Your task to perform on an android device: Toggle the flashlight Image 0: 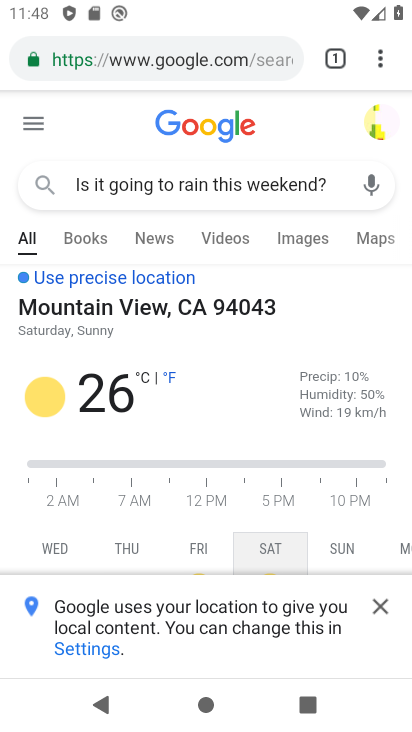
Step 0: press home button
Your task to perform on an android device: Toggle the flashlight Image 1: 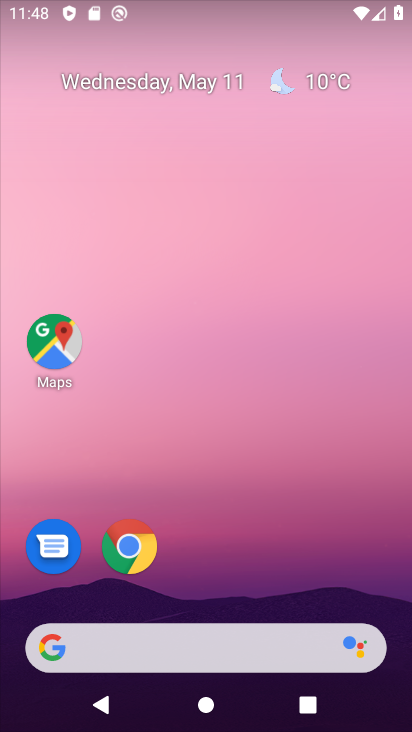
Step 1: drag from (189, 581) to (213, 207)
Your task to perform on an android device: Toggle the flashlight Image 2: 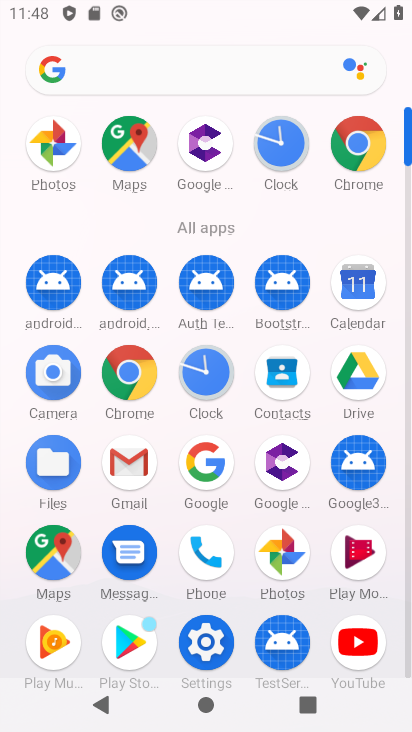
Step 2: click (202, 644)
Your task to perform on an android device: Toggle the flashlight Image 3: 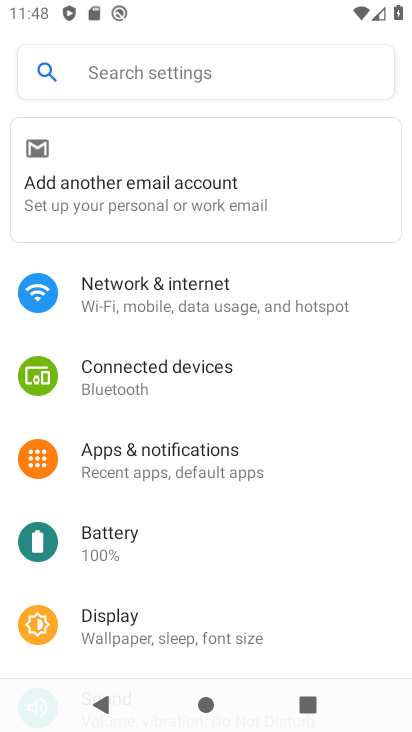
Step 3: click (145, 633)
Your task to perform on an android device: Toggle the flashlight Image 4: 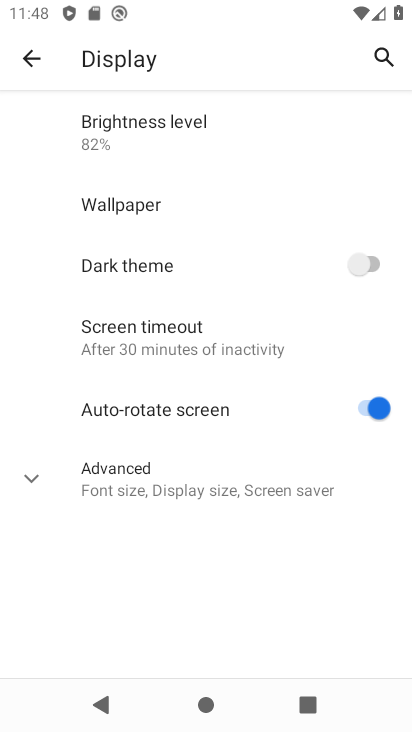
Step 4: task complete